Your task to perform on an android device: turn off location history Image 0: 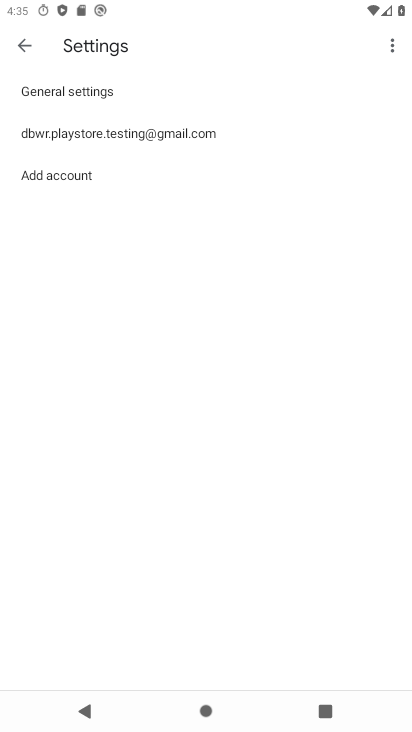
Step 0: press home button
Your task to perform on an android device: turn off location history Image 1: 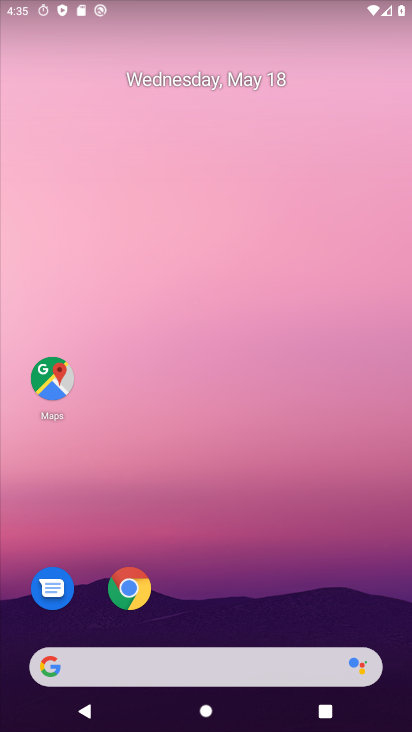
Step 1: drag from (312, 552) to (321, 115)
Your task to perform on an android device: turn off location history Image 2: 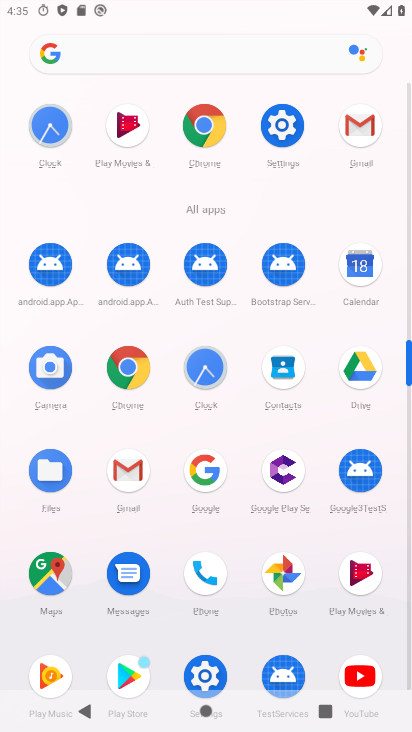
Step 2: click (59, 557)
Your task to perform on an android device: turn off location history Image 3: 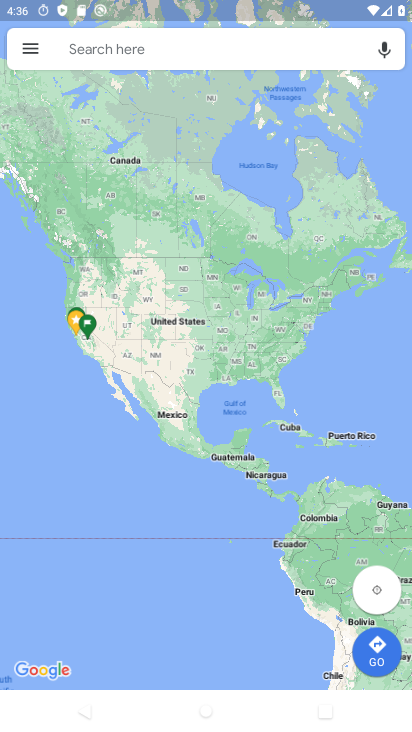
Step 3: click (21, 46)
Your task to perform on an android device: turn off location history Image 4: 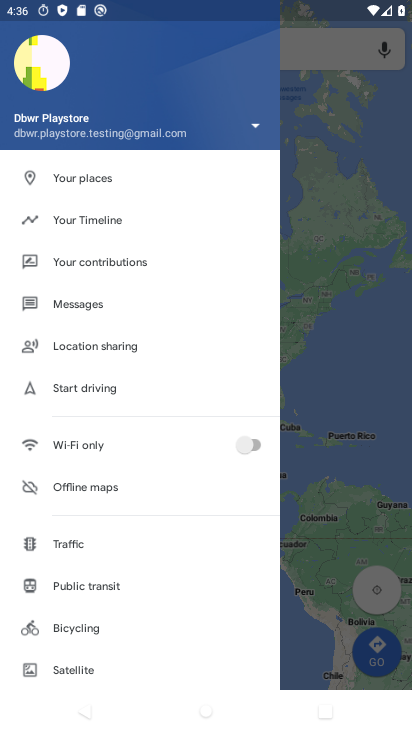
Step 4: drag from (138, 678) to (128, 315)
Your task to perform on an android device: turn off location history Image 5: 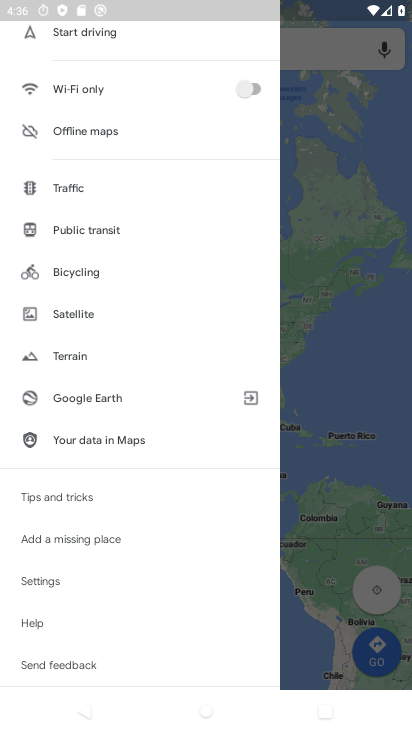
Step 5: drag from (158, 141) to (154, 524)
Your task to perform on an android device: turn off location history Image 6: 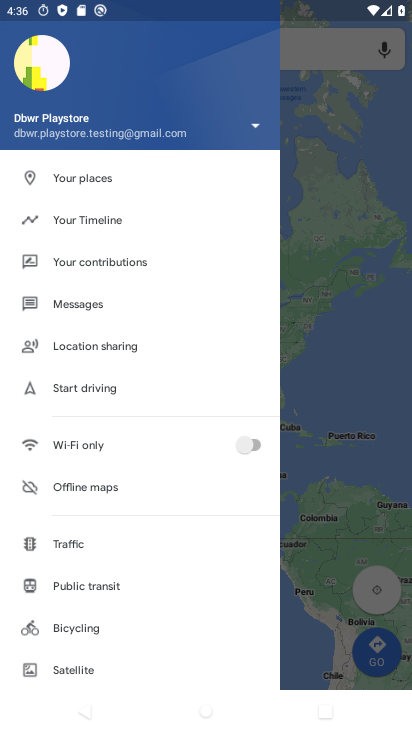
Step 6: click (60, 218)
Your task to perform on an android device: turn off location history Image 7: 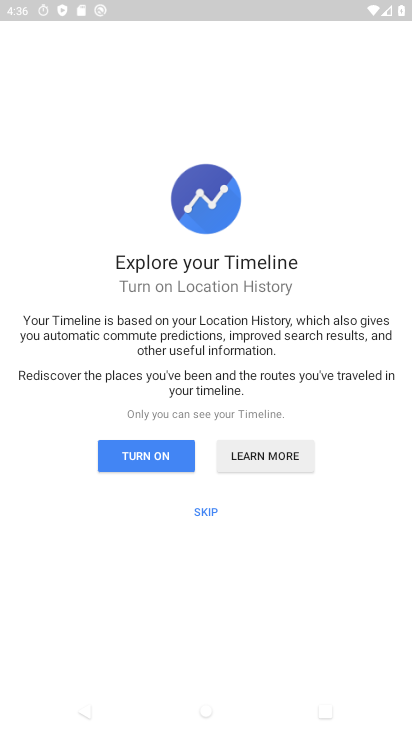
Step 7: click (115, 460)
Your task to perform on an android device: turn off location history Image 8: 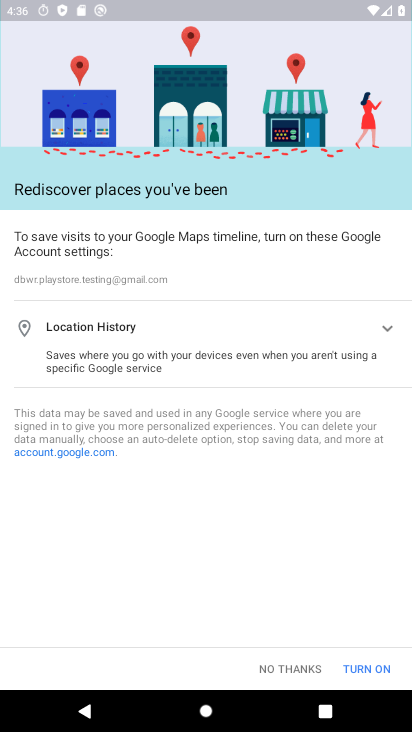
Step 8: click (296, 671)
Your task to perform on an android device: turn off location history Image 9: 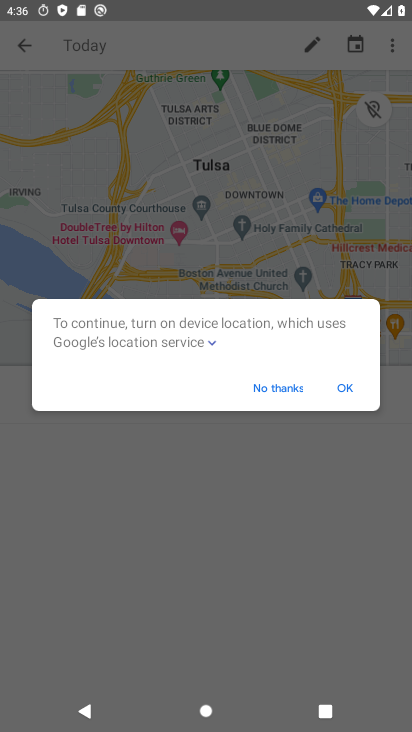
Step 9: click (392, 49)
Your task to perform on an android device: turn off location history Image 10: 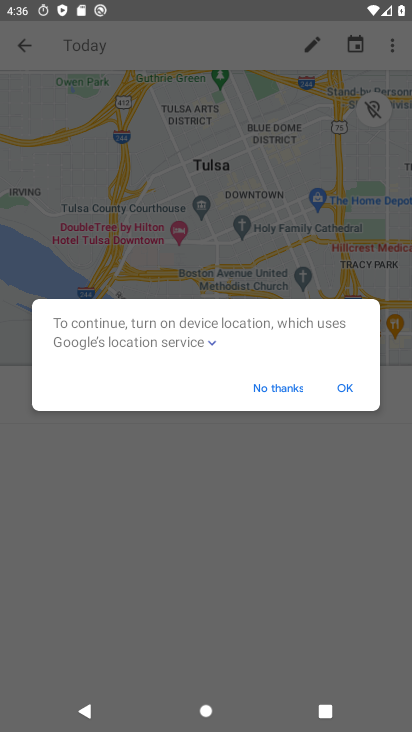
Step 10: click (350, 400)
Your task to perform on an android device: turn off location history Image 11: 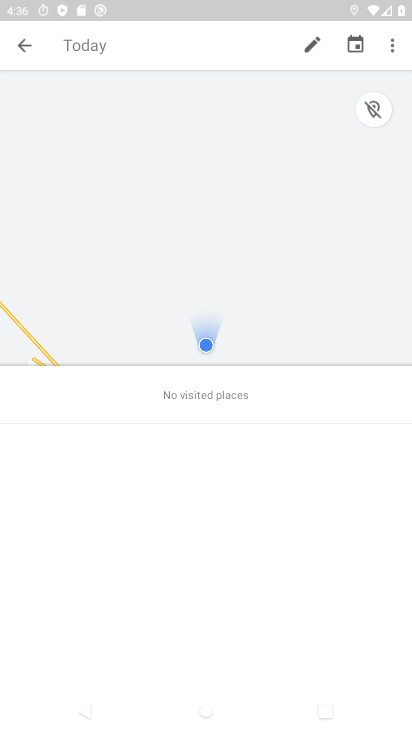
Step 11: click (385, 45)
Your task to perform on an android device: turn off location history Image 12: 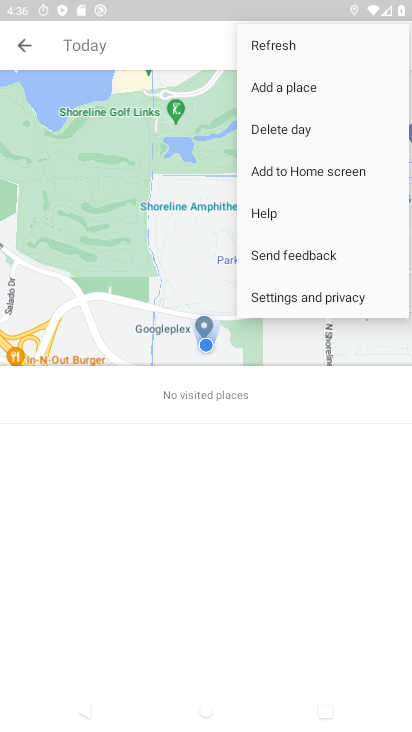
Step 12: click (340, 297)
Your task to perform on an android device: turn off location history Image 13: 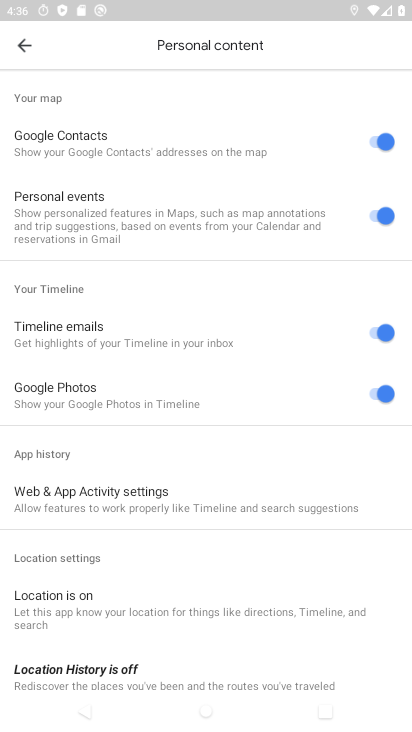
Step 13: drag from (252, 613) to (180, 324)
Your task to perform on an android device: turn off location history Image 14: 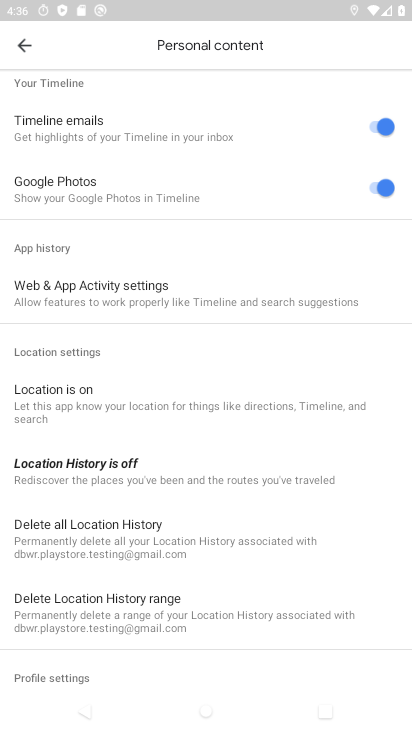
Step 14: click (84, 671)
Your task to perform on an android device: turn off location history Image 15: 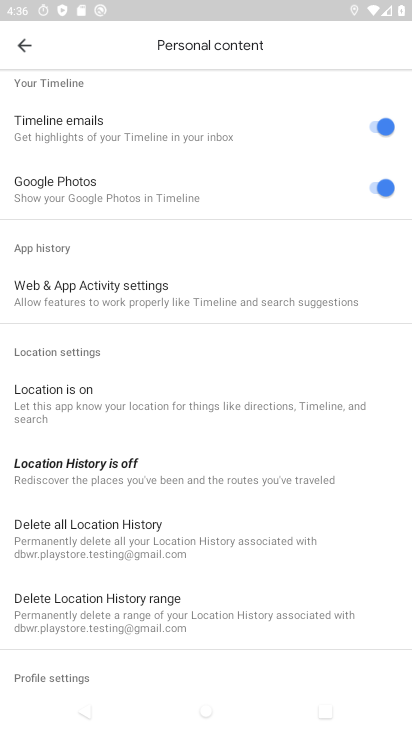
Step 15: click (114, 474)
Your task to perform on an android device: turn off location history Image 16: 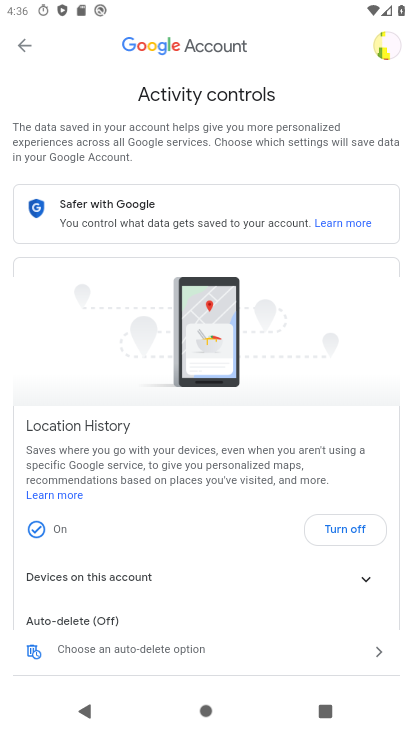
Step 16: click (342, 527)
Your task to perform on an android device: turn off location history Image 17: 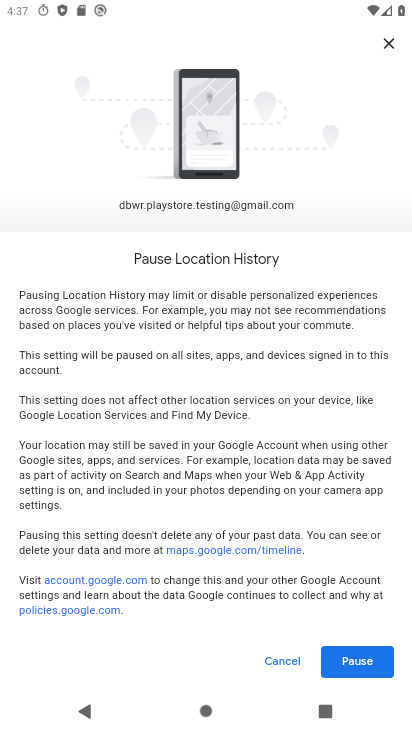
Step 17: click (355, 654)
Your task to perform on an android device: turn off location history Image 18: 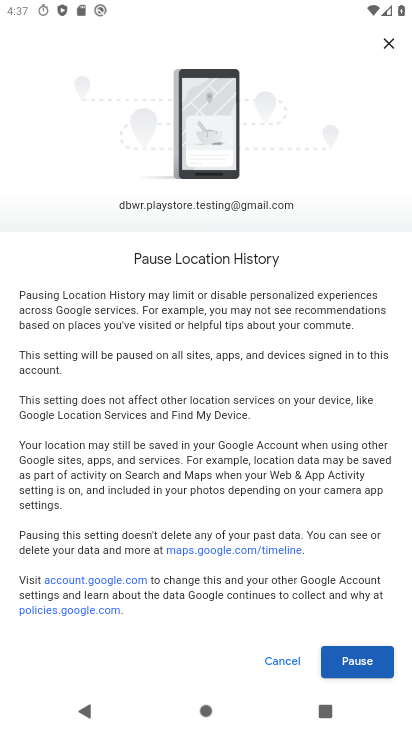
Step 18: click (373, 656)
Your task to perform on an android device: turn off location history Image 19: 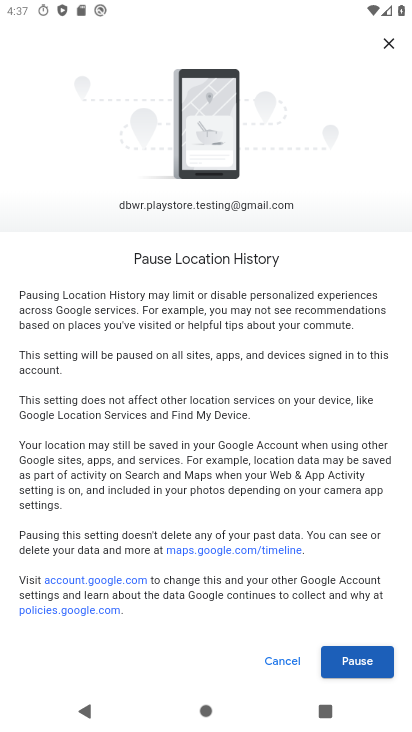
Step 19: click (373, 656)
Your task to perform on an android device: turn off location history Image 20: 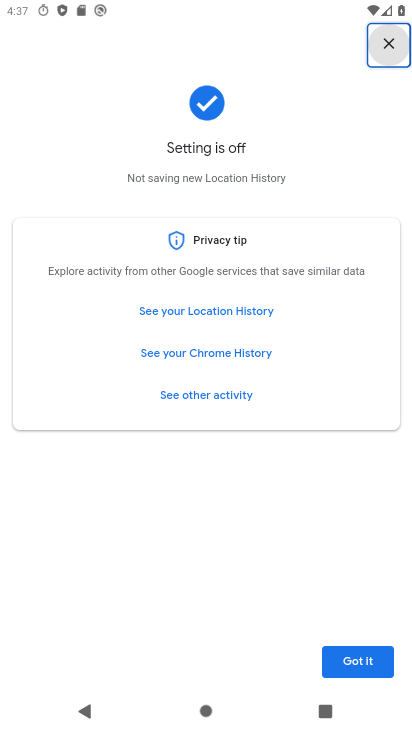
Step 20: click (368, 669)
Your task to perform on an android device: turn off location history Image 21: 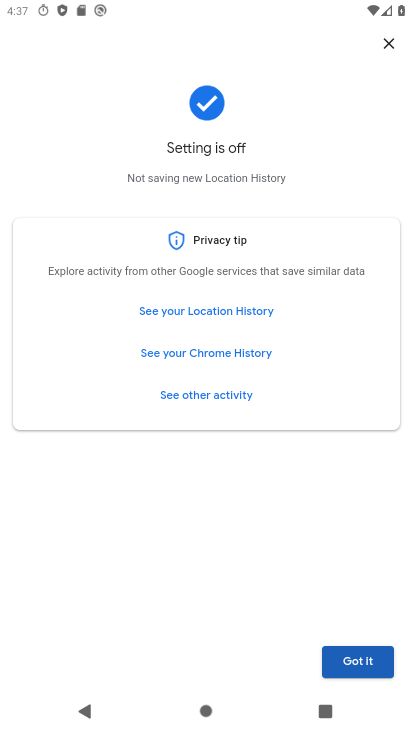
Step 21: click (357, 658)
Your task to perform on an android device: turn off location history Image 22: 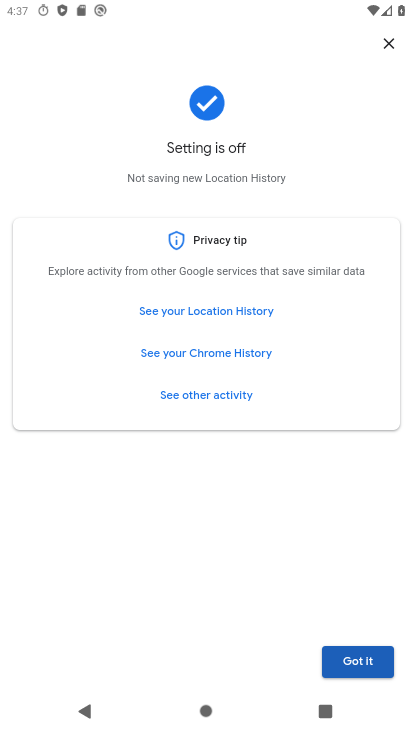
Step 22: task complete